Your task to perform on an android device: Open Chrome and go to settings Image 0: 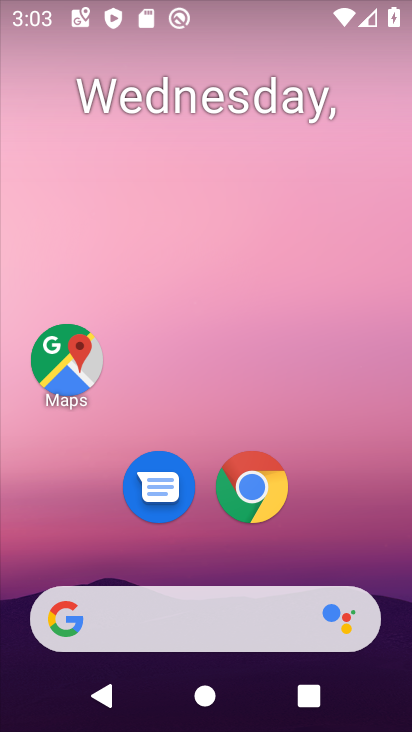
Step 0: click (256, 481)
Your task to perform on an android device: Open Chrome and go to settings Image 1: 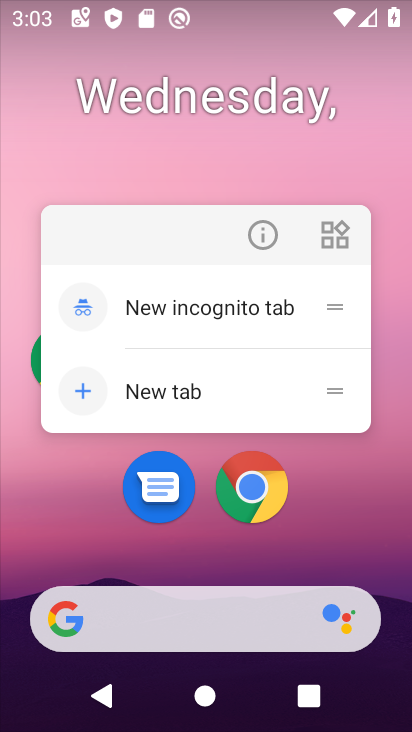
Step 1: click (256, 481)
Your task to perform on an android device: Open Chrome and go to settings Image 2: 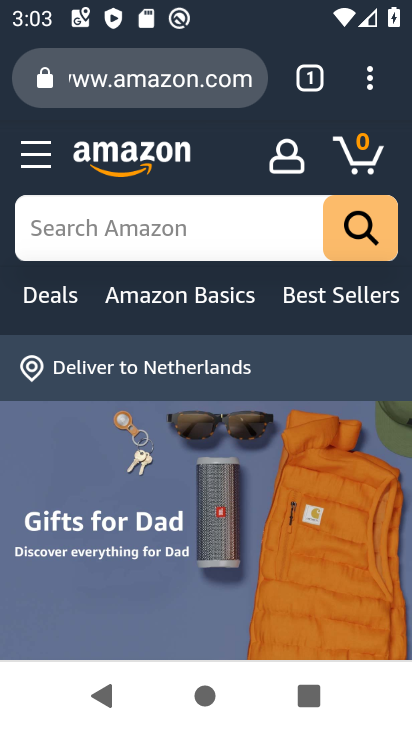
Step 2: click (372, 77)
Your task to perform on an android device: Open Chrome and go to settings Image 3: 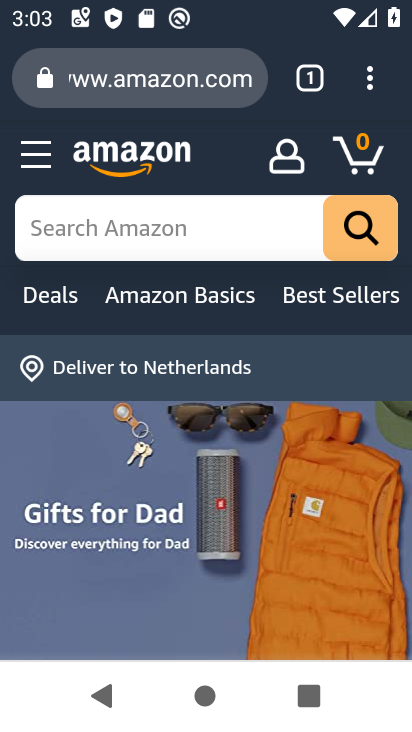
Step 3: click (372, 77)
Your task to perform on an android device: Open Chrome and go to settings Image 4: 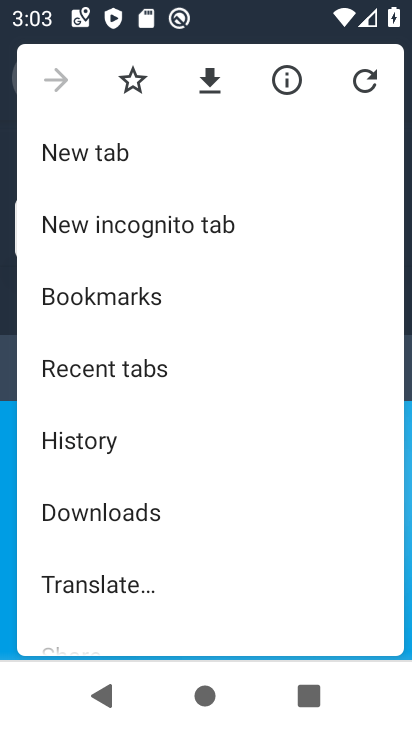
Step 4: drag from (212, 543) to (171, 120)
Your task to perform on an android device: Open Chrome and go to settings Image 5: 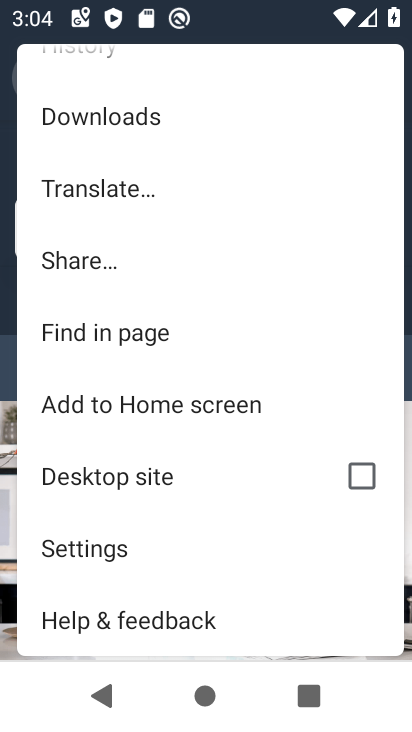
Step 5: click (159, 560)
Your task to perform on an android device: Open Chrome and go to settings Image 6: 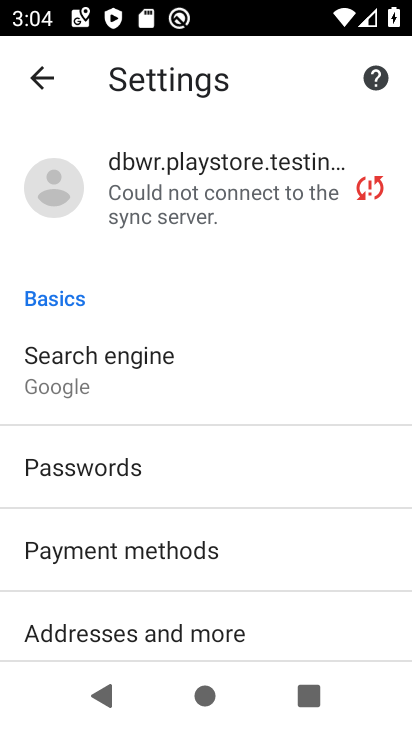
Step 6: task complete